Your task to perform on an android device: open a bookmark in the chrome app Image 0: 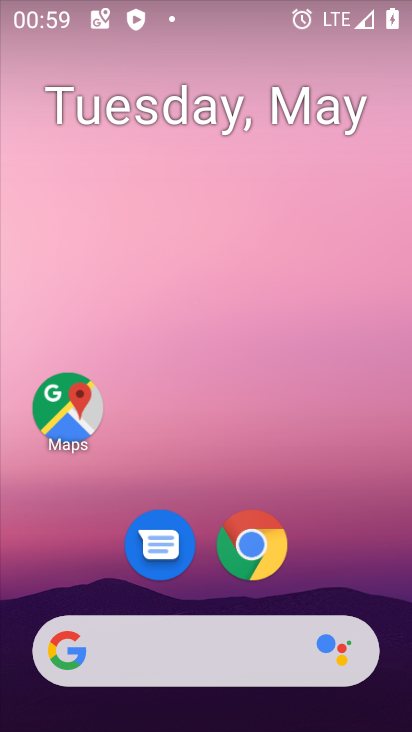
Step 0: click (268, 552)
Your task to perform on an android device: open a bookmark in the chrome app Image 1: 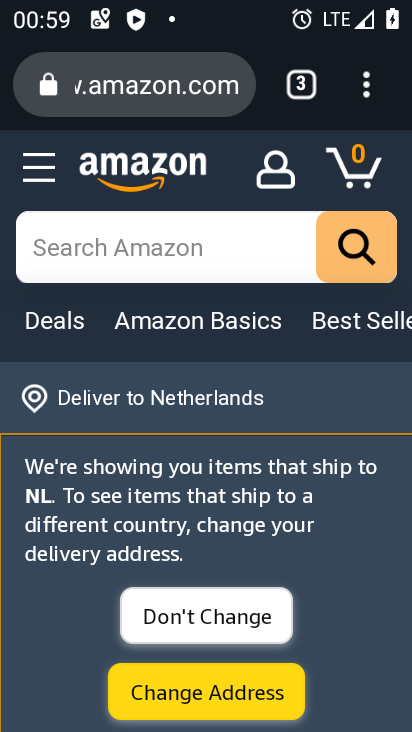
Step 1: click (345, 76)
Your task to perform on an android device: open a bookmark in the chrome app Image 2: 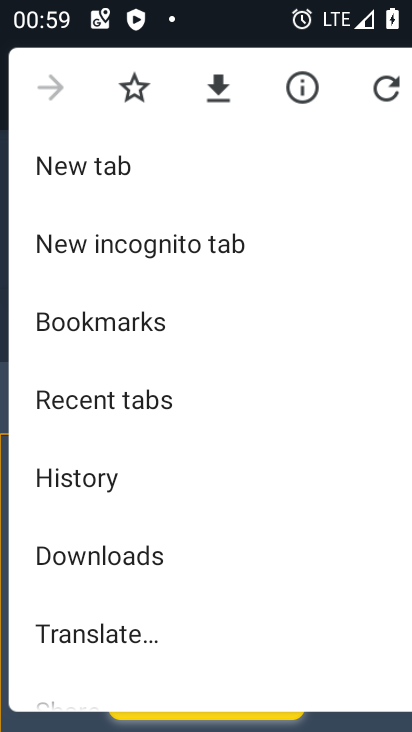
Step 2: click (98, 333)
Your task to perform on an android device: open a bookmark in the chrome app Image 3: 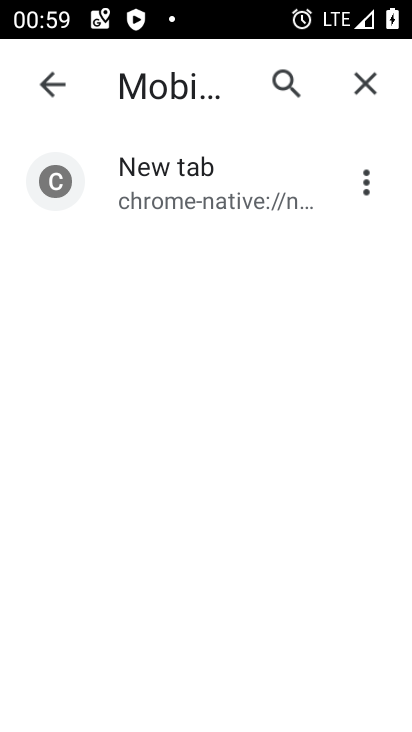
Step 3: click (205, 190)
Your task to perform on an android device: open a bookmark in the chrome app Image 4: 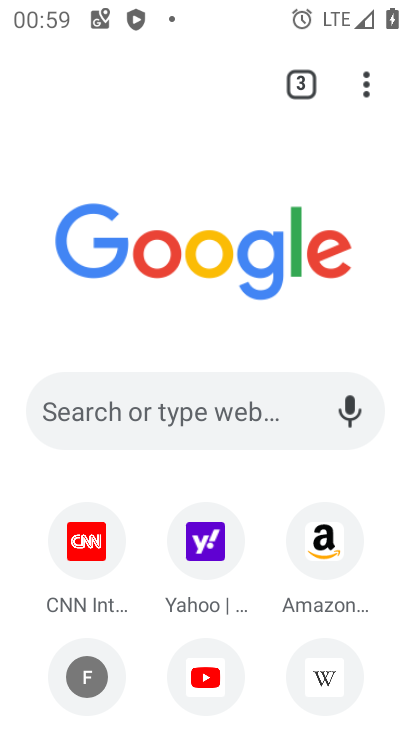
Step 4: task complete